Your task to perform on an android device: Is it going to rain this weekend? Image 0: 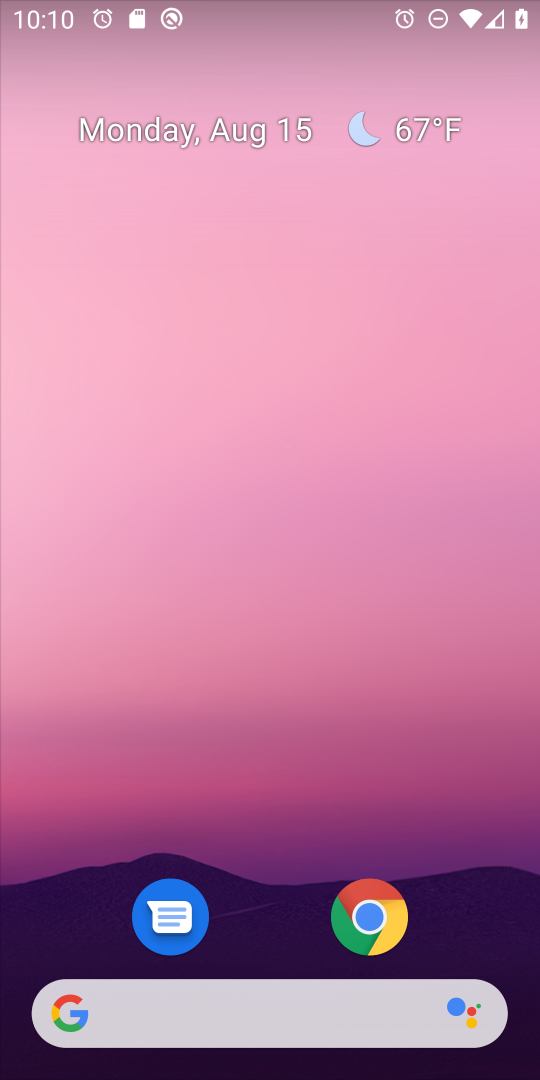
Step 0: drag from (269, 831) to (330, 128)
Your task to perform on an android device: Is it going to rain this weekend? Image 1: 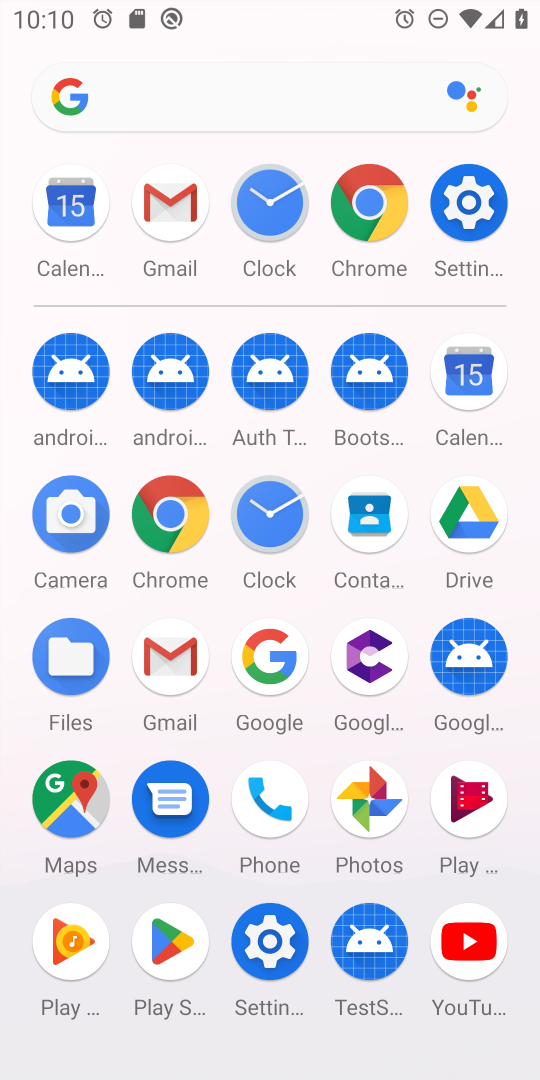
Step 1: press back button
Your task to perform on an android device: Is it going to rain this weekend? Image 2: 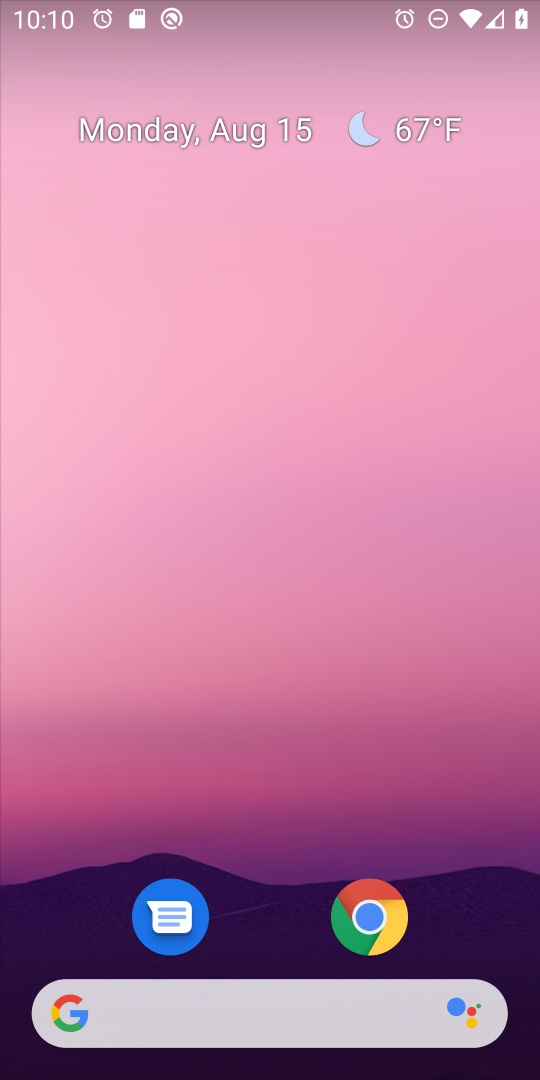
Step 2: click (436, 135)
Your task to perform on an android device: Is it going to rain this weekend? Image 3: 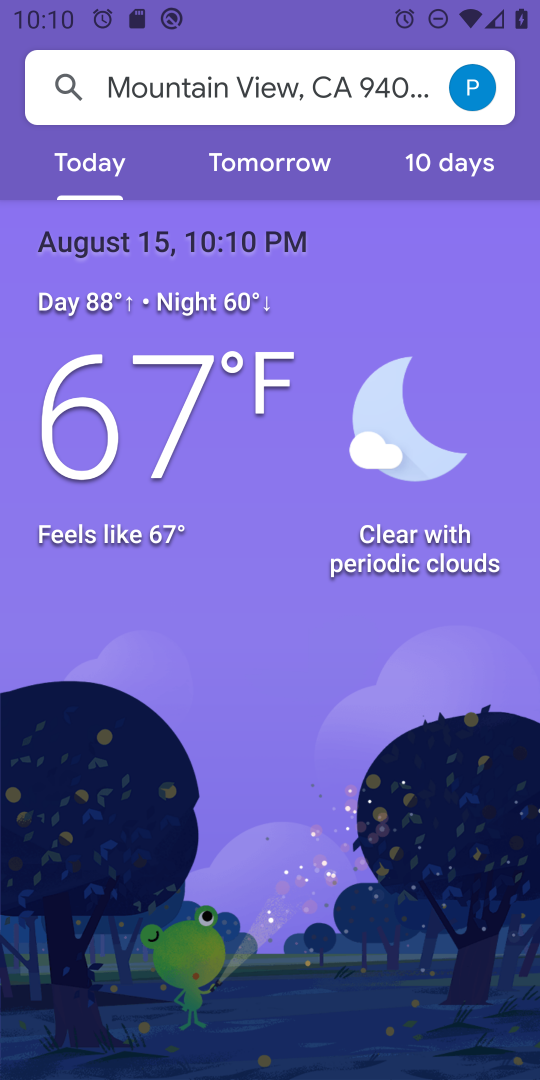
Step 3: click (436, 152)
Your task to perform on an android device: Is it going to rain this weekend? Image 4: 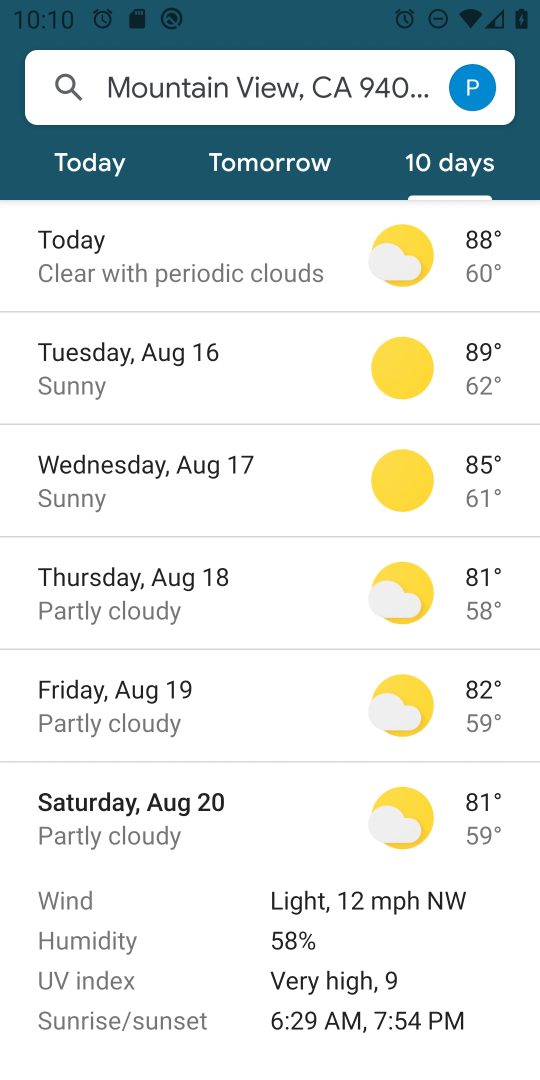
Step 4: click (447, 164)
Your task to perform on an android device: Is it going to rain this weekend? Image 5: 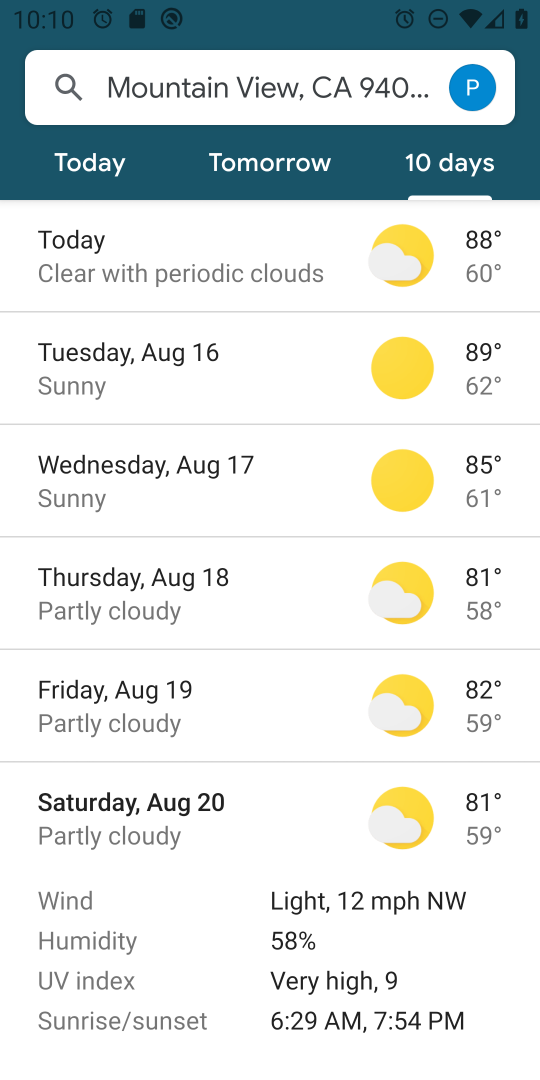
Step 5: task complete